Your task to perform on an android device: See recent photos Image 0: 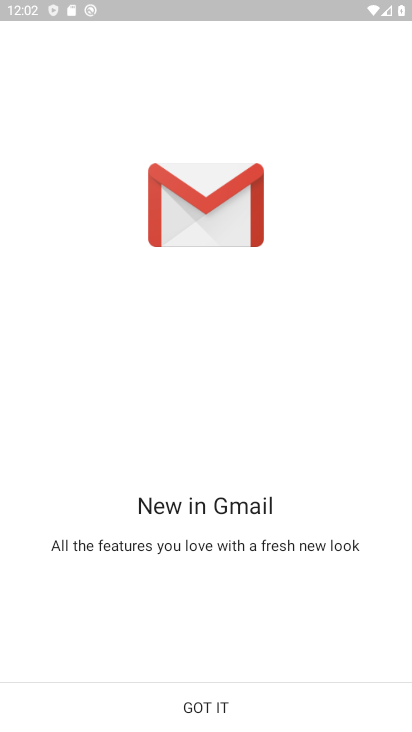
Step 0: click (194, 714)
Your task to perform on an android device: See recent photos Image 1: 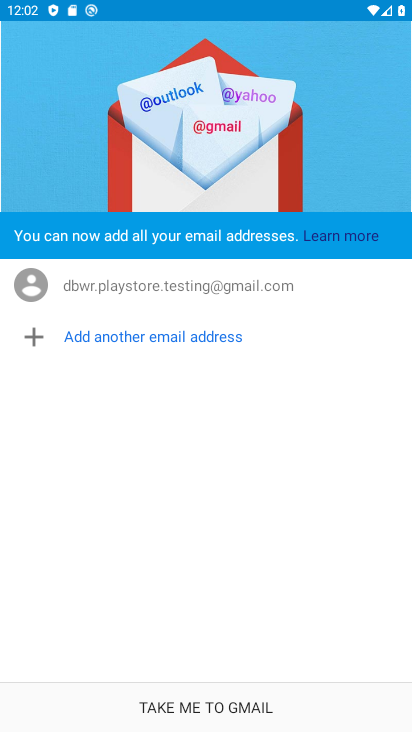
Step 1: click (315, 723)
Your task to perform on an android device: See recent photos Image 2: 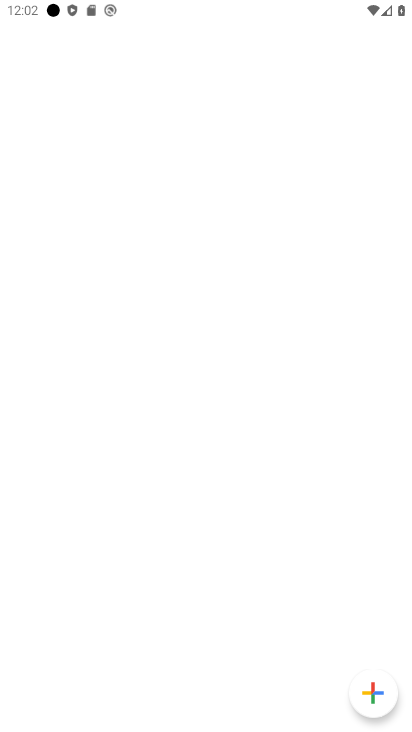
Step 2: press home button
Your task to perform on an android device: See recent photos Image 3: 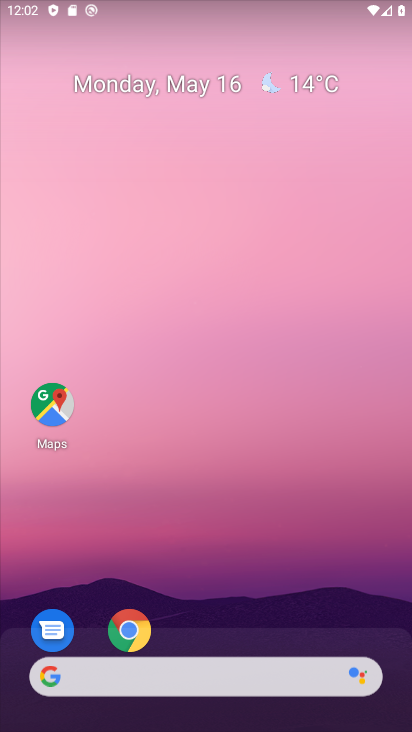
Step 3: drag from (324, 622) to (241, 70)
Your task to perform on an android device: See recent photos Image 4: 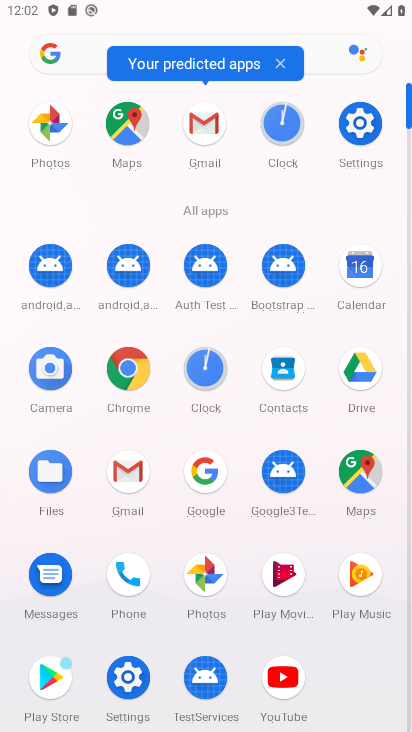
Step 4: click (58, 116)
Your task to perform on an android device: See recent photos Image 5: 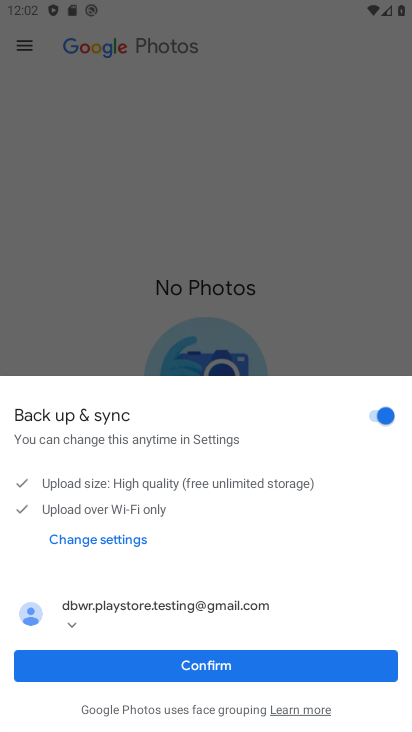
Step 5: click (214, 672)
Your task to perform on an android device: See recent photos Image 6: 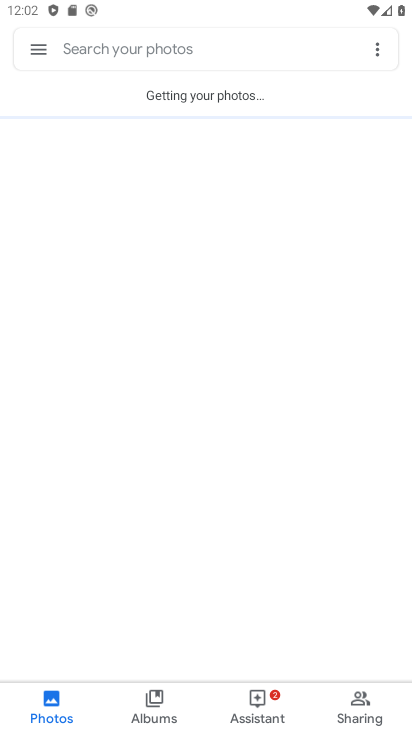
Step 6: task complete